Your task to perform on an android device: check battery use Image 0: 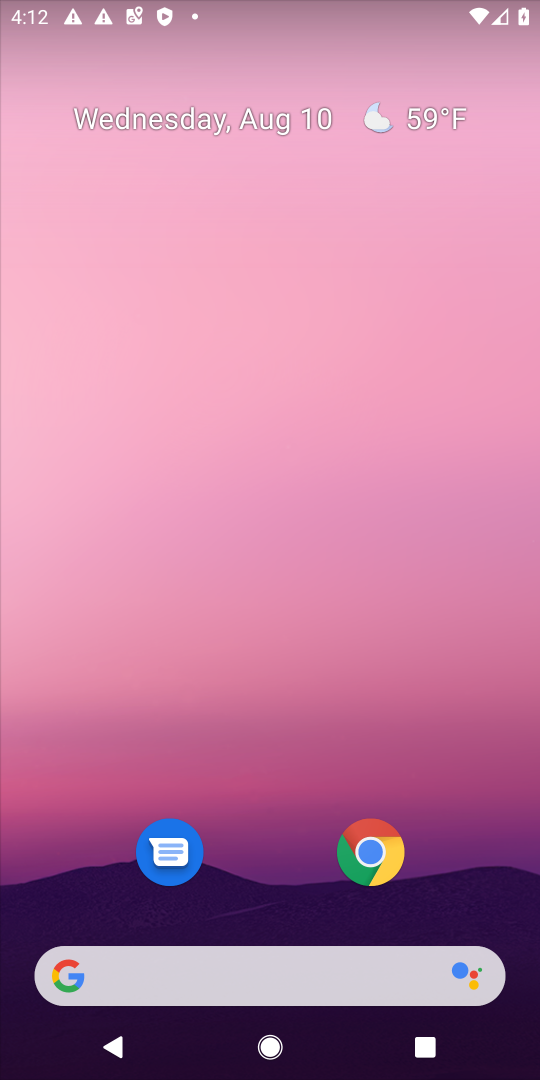
Step 0: drag from (272, 895) to (118, 262)
Your task to perform on an android device: check battery use Image 1: 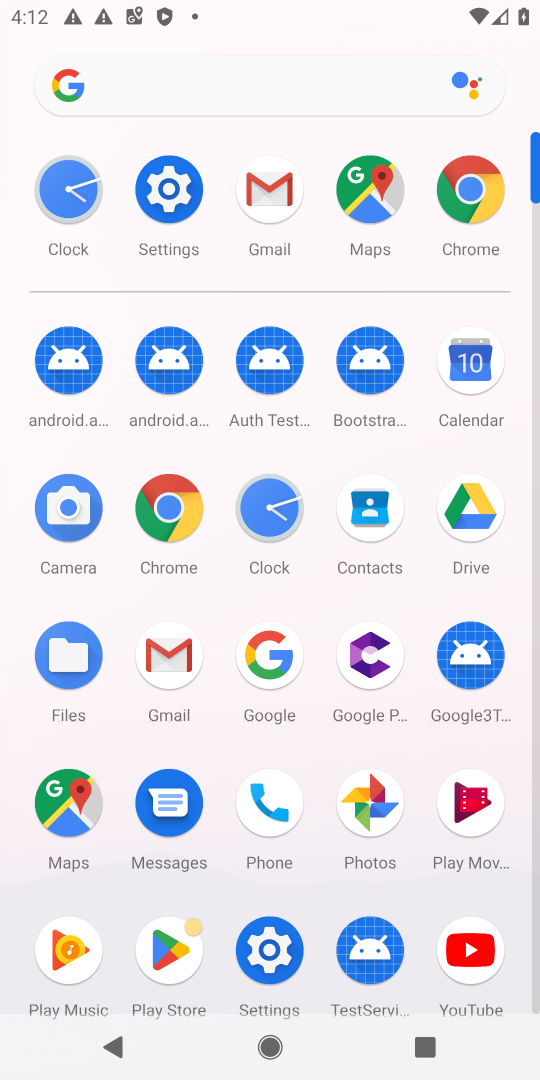
Step 1: click (264, 945)
Your task to perform on an android device: check battery use Image 2: 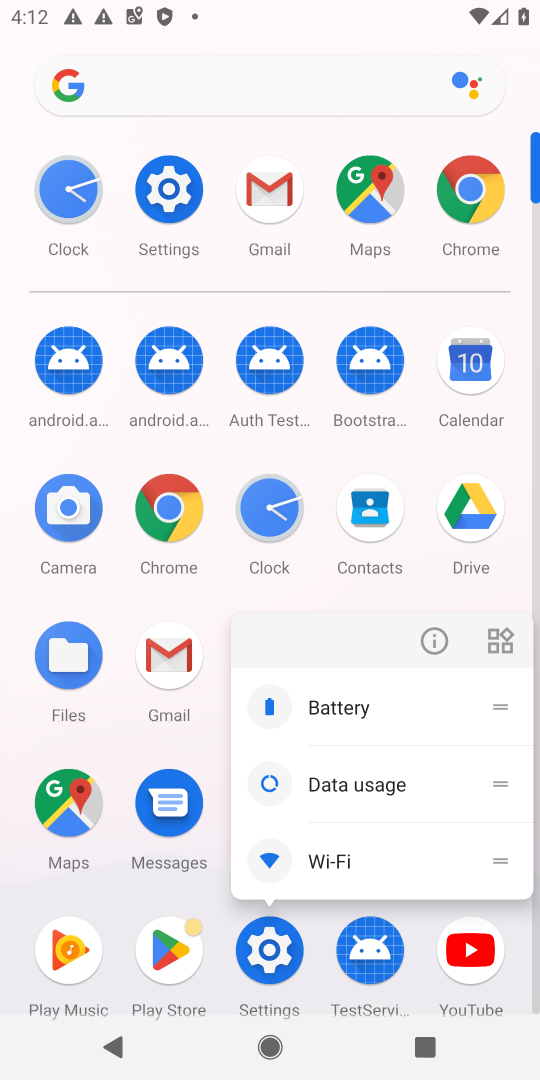
Step 2: click (264, 940)
Your task to perform on an android device: check battery use Image 3: 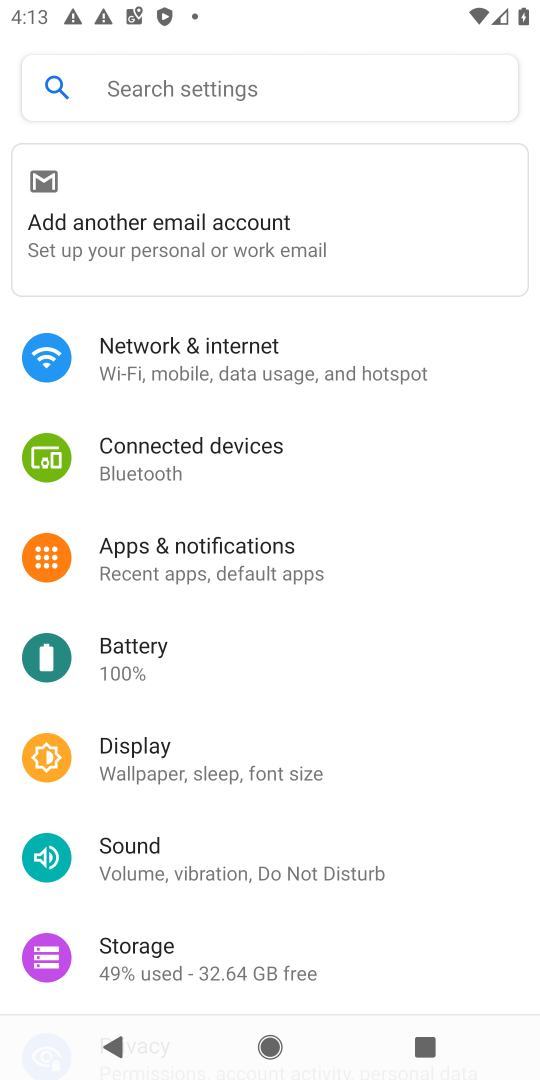
Step 3: click (129, 653)
Your task to perform on an android device: check battery use Image 4: 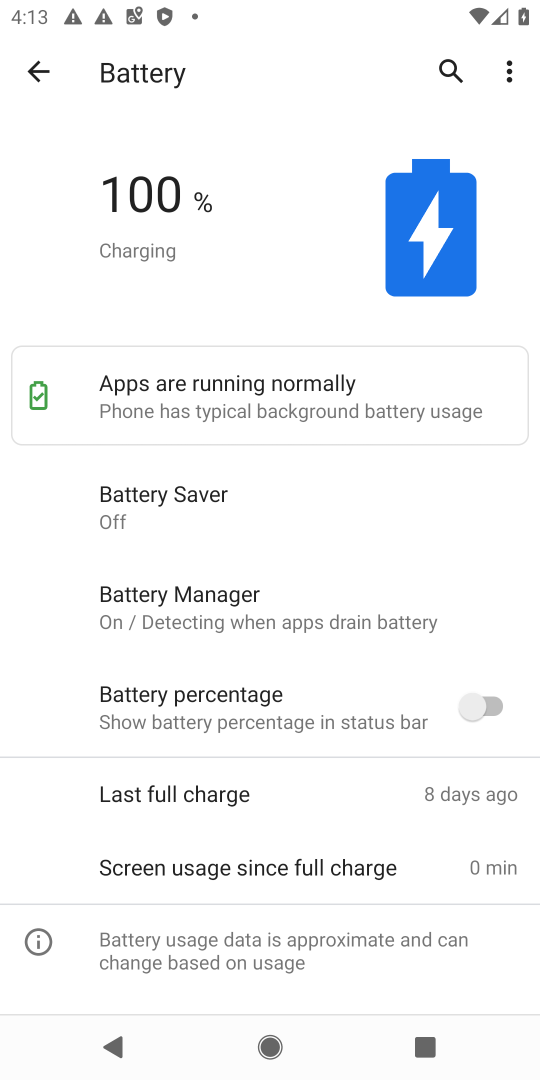
Step 4: click (509, 59)
Your task to perform on an android device: check battery use Image 5: 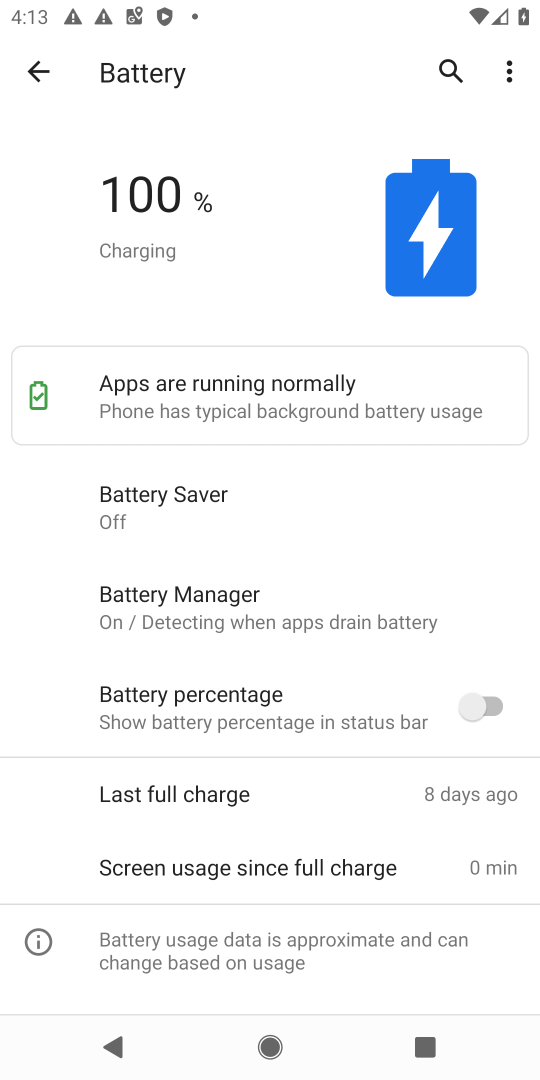
Step 5: click (499, 79)
Your task to perform on an android device: check battery use Image 6: 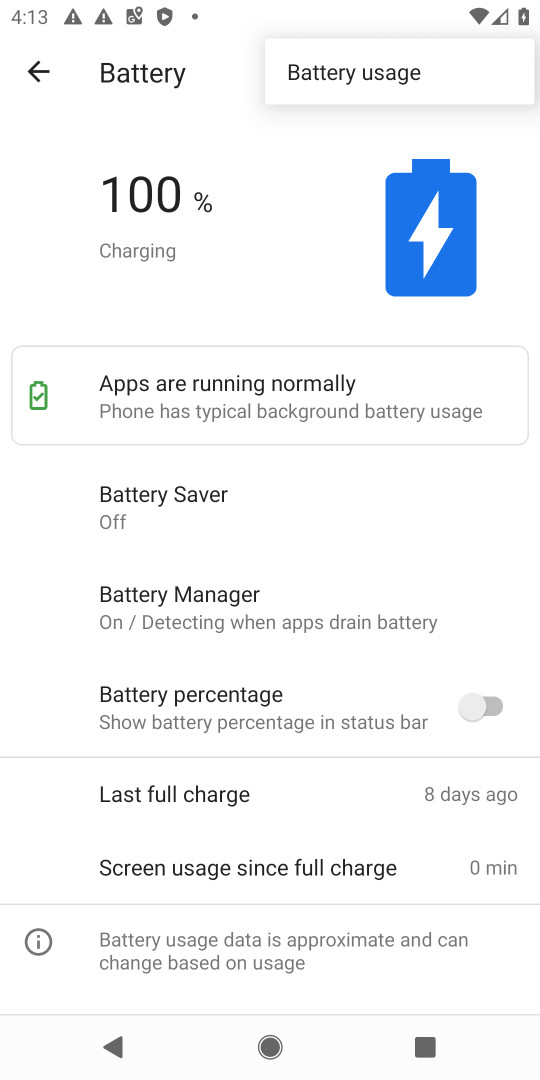
Step 6: click (437, 85)
Your task to perform on an android device: check battery use Image 7: 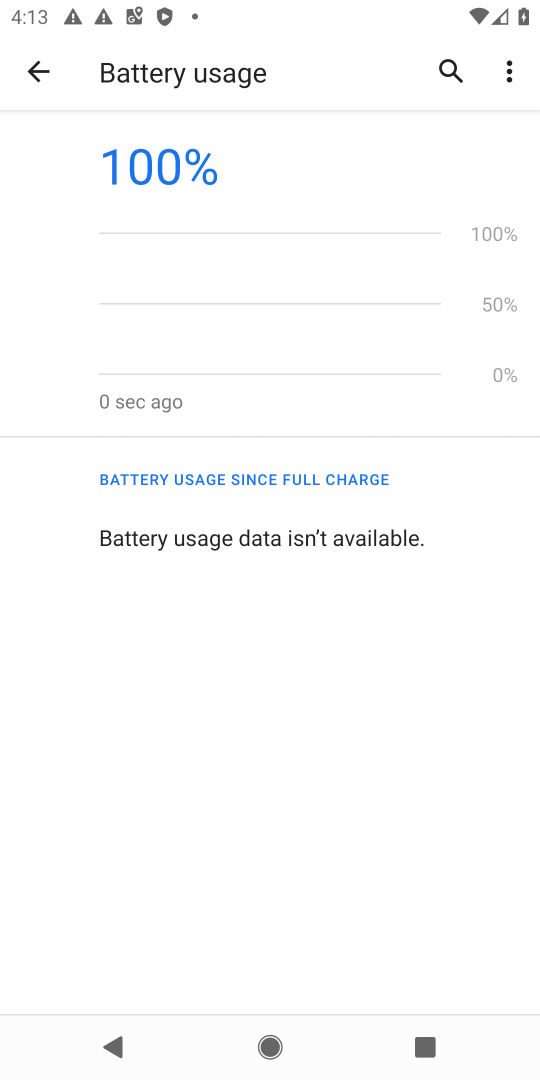
Step 7: task complete